Your task to perform on an android device: Show me recent news Image 0: 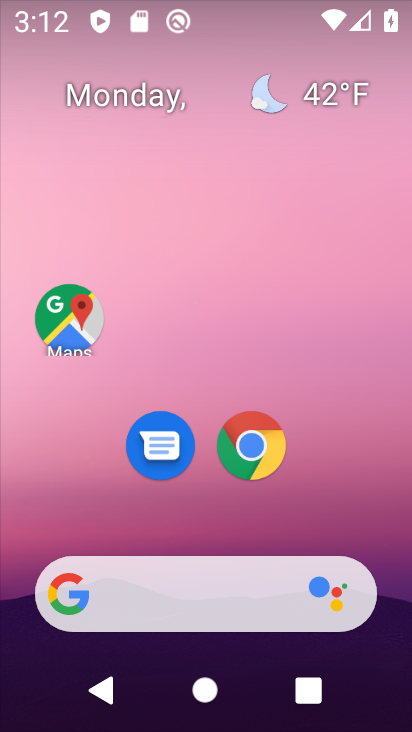
Step 0: drag from (26, 530) to (205, 28)
Your task to perform on an android device: Show me recent news Image 1: 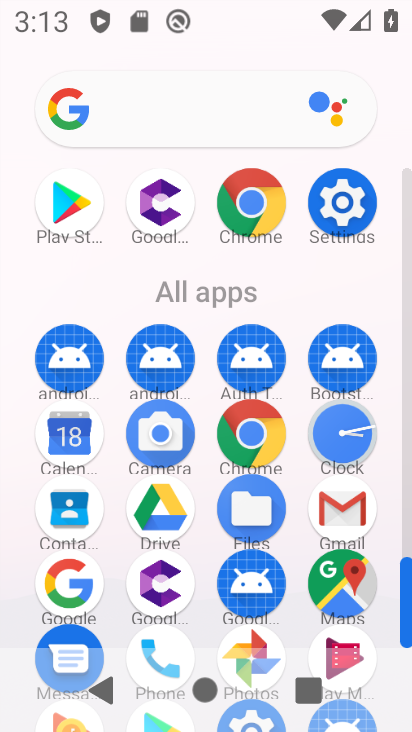
Step 1: click (253, 447)
Your task to perform on an android device: Show me recent news Image 2: 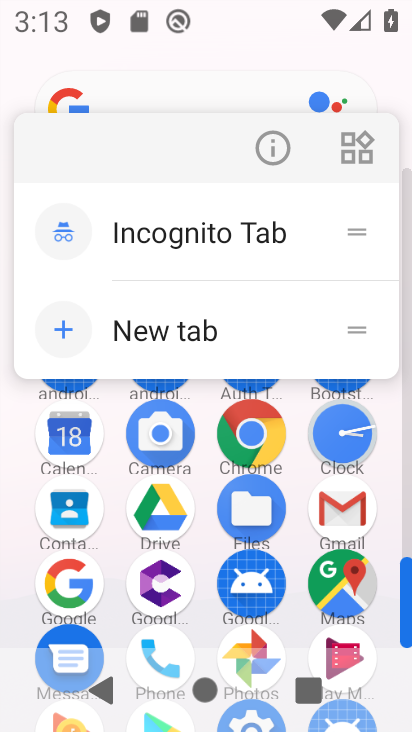
Step 2: click (253, 447)
Your task to perform on an android device: Show me recent news Image 3: 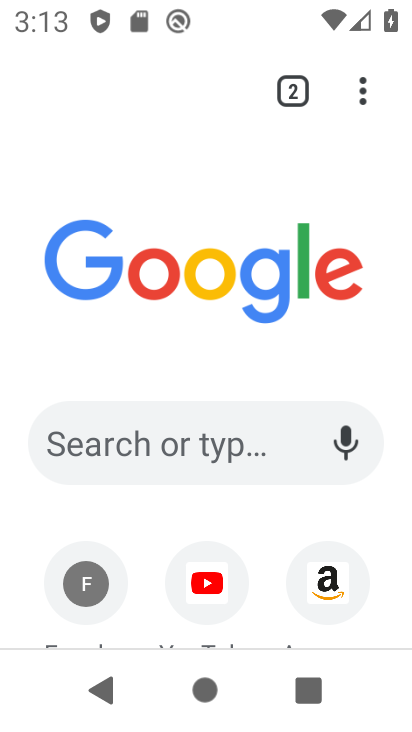
Step 3: drag from (162, 624) to (159, 58)
Your task to perform on an android device: Show me recent news Image 4: 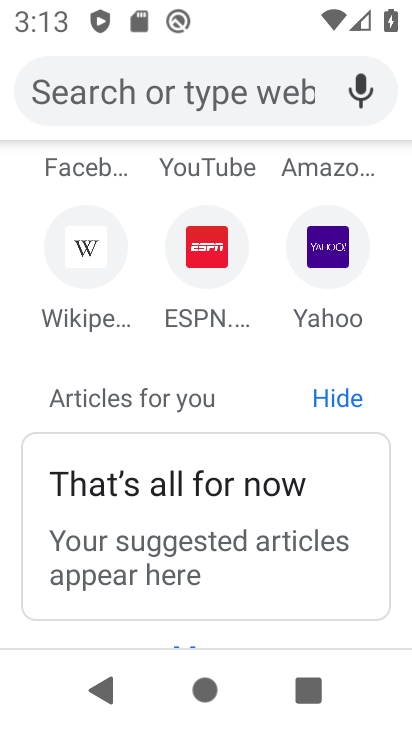
Step 4: drag from (192, 553) to (184, 127)
Your task to perform on an android device: Show me recent news Image 5: 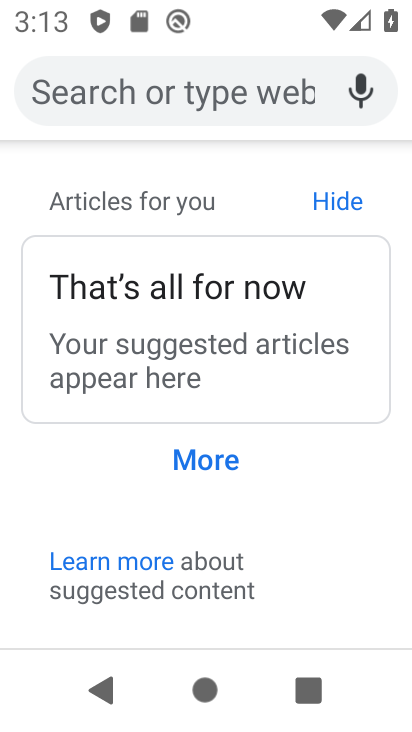
Step 5: click (212, 457)
Your task to perform on an android device: Show me recent news Image 6: 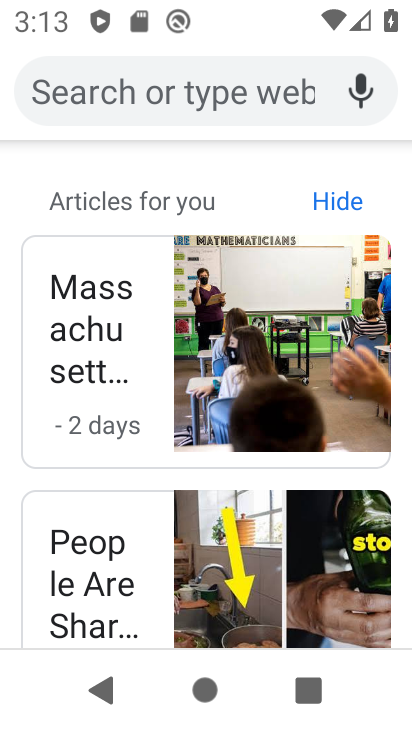
Step 6: click (62, 338)
Your task to perform on an android device: Show me recent news Image 7: 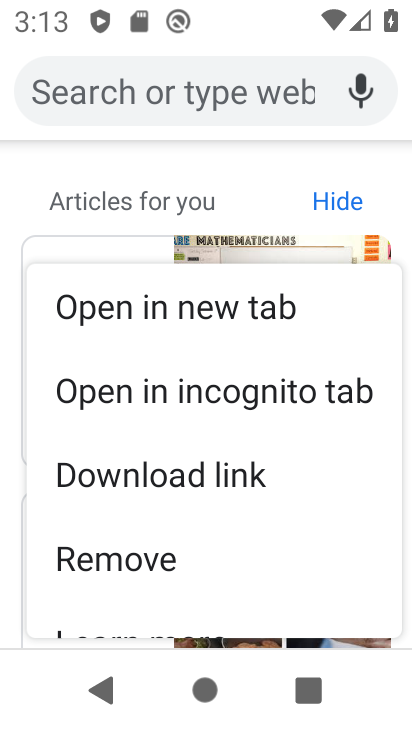
Step 7: click (94, 239)
Your task to perform on an android device: Show me recent news Image 8: 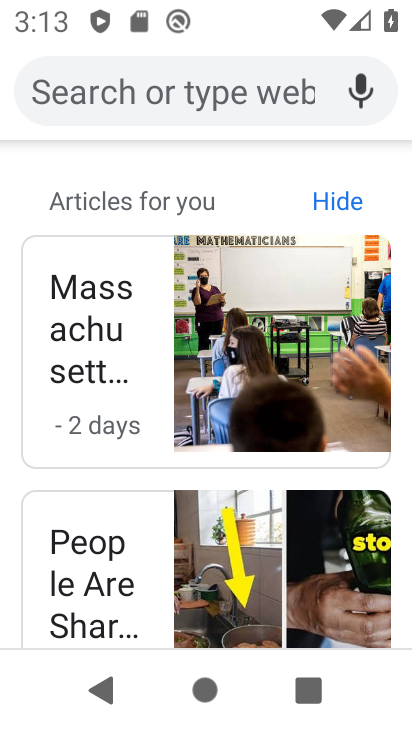
Step 8: click (69, 338)
Your task to perform on an android device: Show me recent news Image 9: 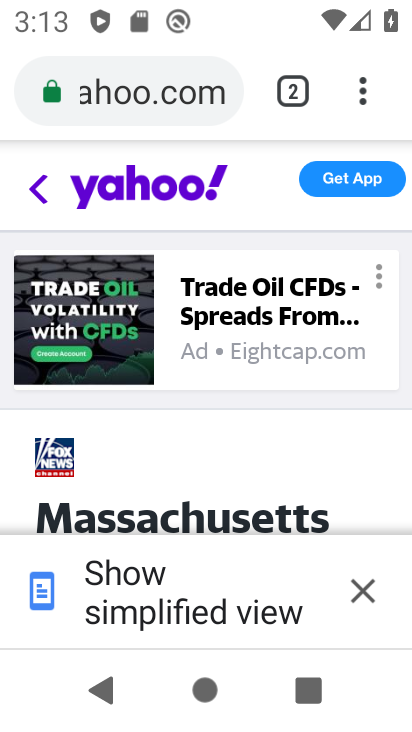
Step 9: task complete